Your task to perform on an android device: turn off improve location accuracy Image 0: 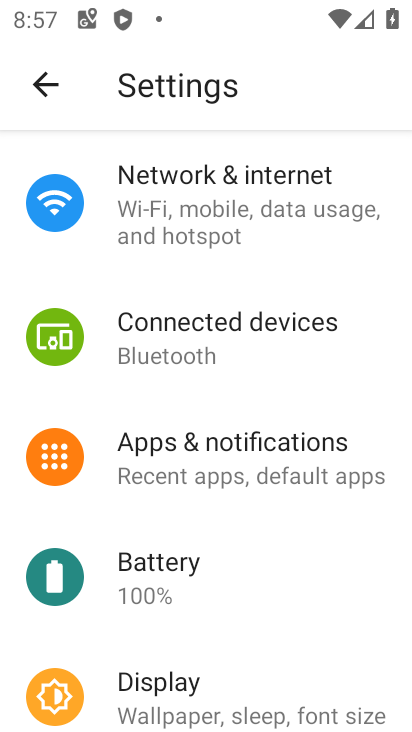
Step 0: press back button
Your task to perform on an android device: turn off improve location accuracy Image 1: 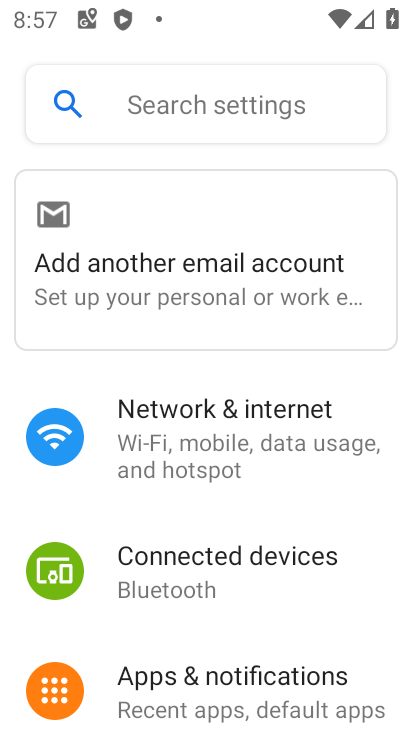
Step 1: press back button
Your task to perform on an android device: turn off improve location accuracy Image 2: 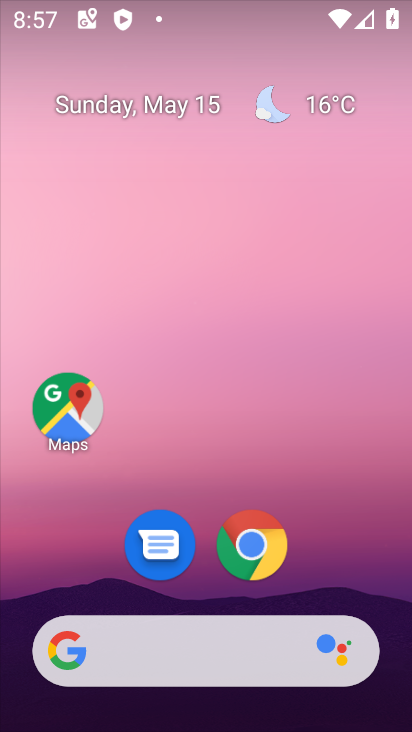
Step 2: drag from (328, 573) to (240, 239)
Your task to perform on an android device: turn off improve location accuracy Image 3: 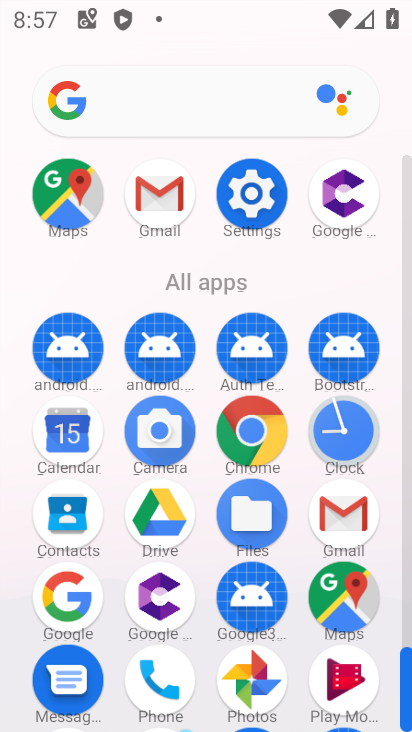
Step 3: click (252, 192)
Your task to perform on an android device: turn off improve location accuracy Image 4: 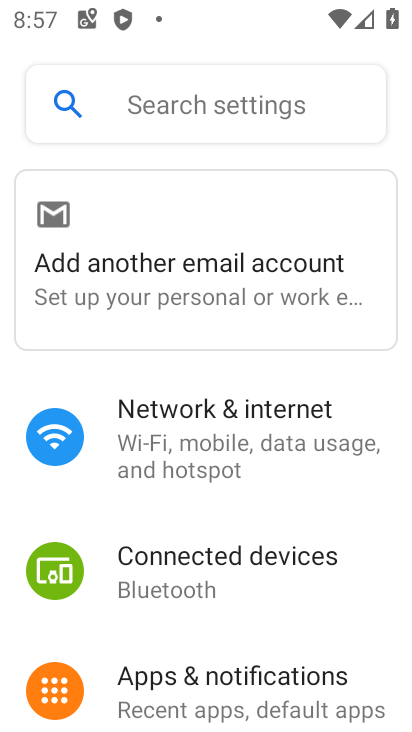
Step 4: drag from (236, 580) to (251, 492)
Your task to perform on an android device: turn off improve location accuracy Image 5: 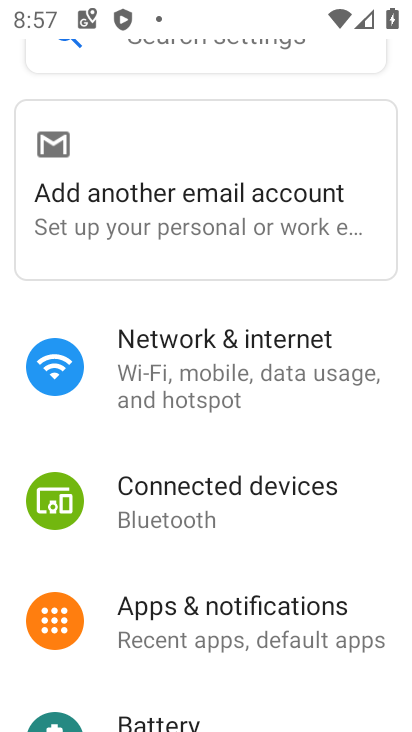
Step 5: drag from (233, 558) to (256, 456)
Your task to perform on an android device: turn off improve location accuracy Image 6: 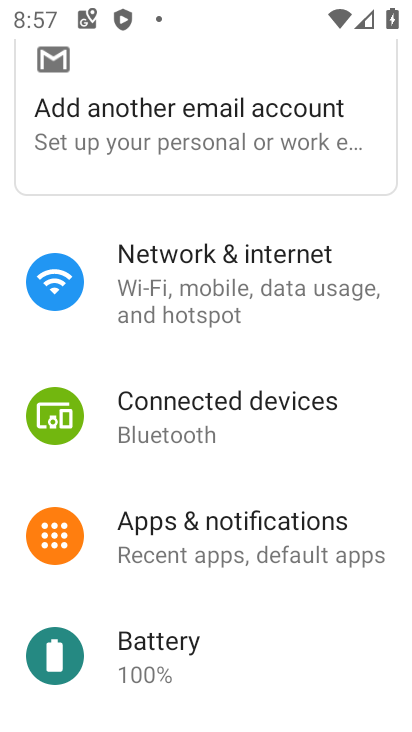
Step 6: drag from (219, 587) to (244, 489)
Your task to perform on an android device: turn off improve location accuracy Image 7: 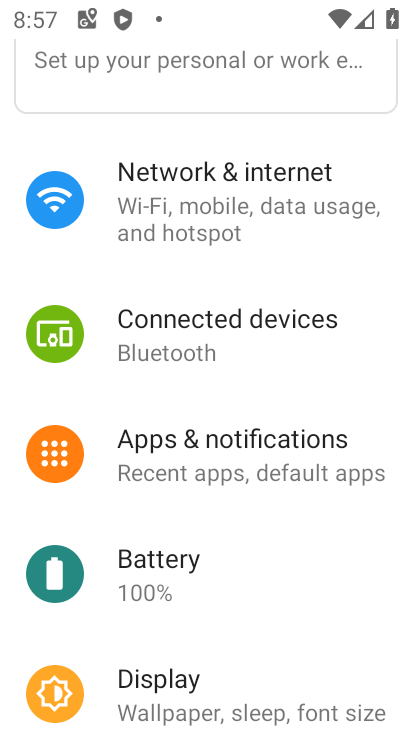
Step 7: drag from (231, 589) to (283, 490)
Your task to perform on an android device: turn off improve location accuracy Image 8: 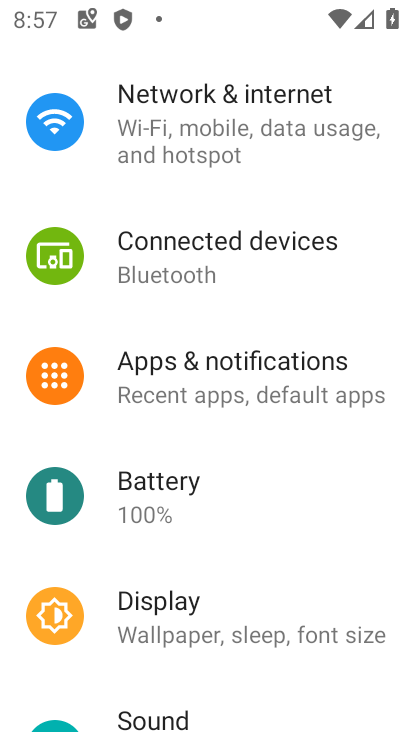
Step 8: drag from (223, 576) to (251, 480)
Your task to perform on an android device: turn off improve location accuracy Image 9: 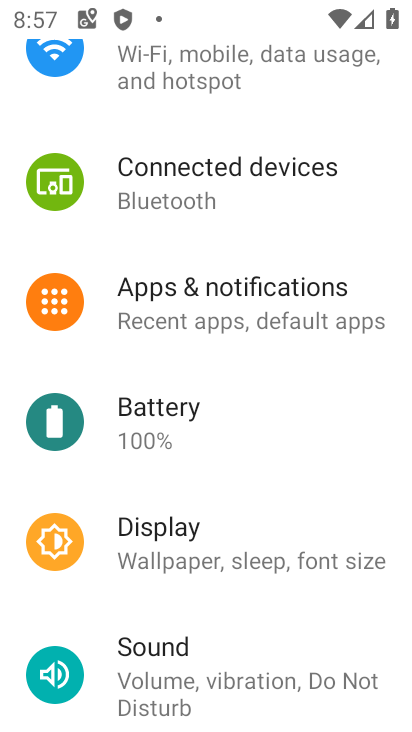
Step 9: drag from (205, 575) to (243, 495)
Your task to perform on an android device: turn off improve location accuracy Image 10: 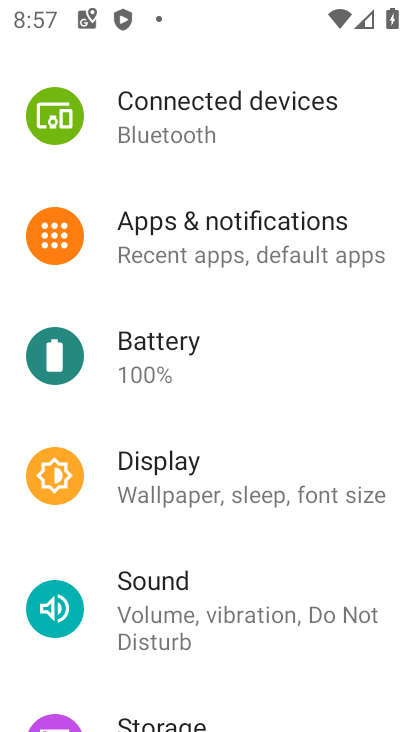
Step 10: drag from (214, 561) to (264, 462)
Your task to perform on an android device: turn off improve location accuracy Image 11: 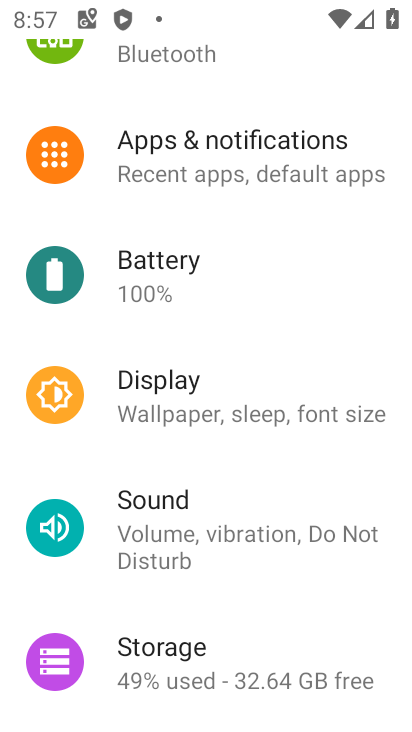
Step 11: drag from (199, 590) to (226, 497)
Your task to perform on an android device: turn off improve location accuracy Image 12: 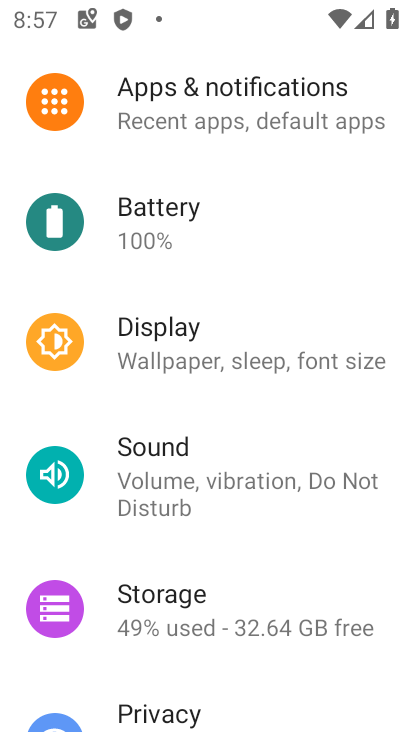
Step 12: drag from (173, 650) to (215, 553)
Your task to perform on an android device: turn off improve location accuracy Image 13: 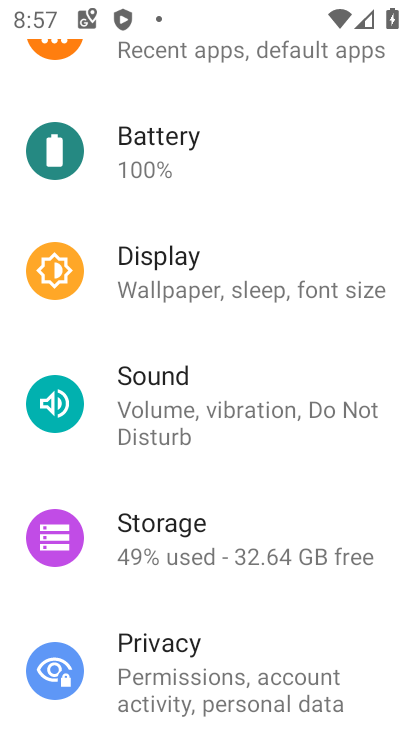
Step 13: drag from (165, 607) to (245, 474)
Your task to perform on an android device: turn off improve location accuracy Image 14: 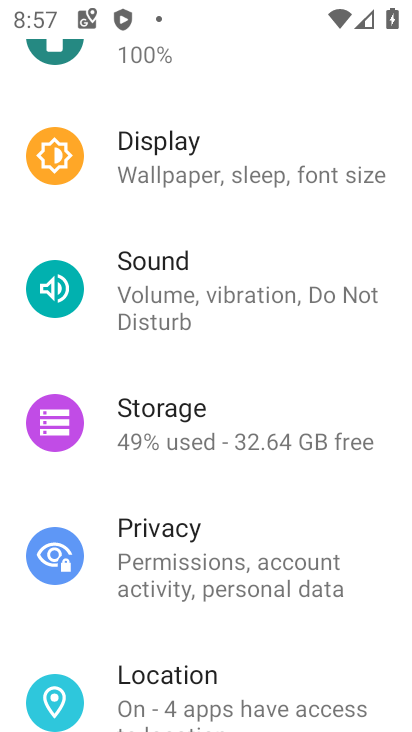
Step 14: drag from (171, 649) to (246, 534)
Your task to perform on an android device: turn off improve location accuracy Image 15: 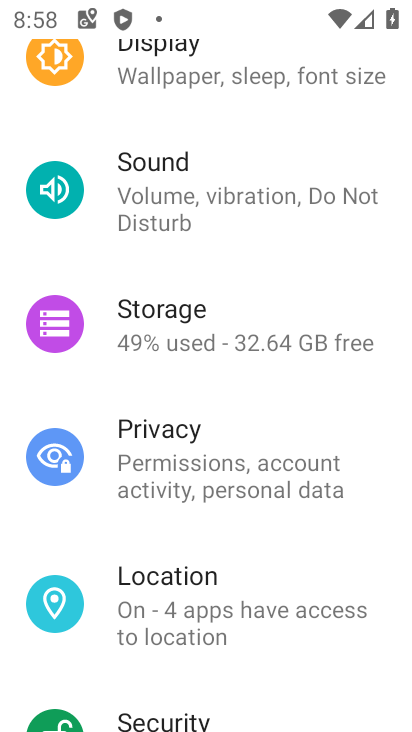
Step 15: click (181, 589)
Your task to perform on an android device: turn off improve location accuracy Image 16: 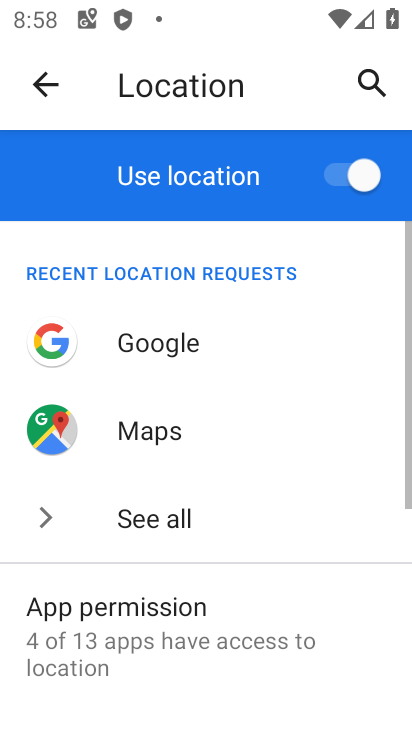
Step 16: drag from (247, 620) to (316, 458)
Your task to perform on an android device: turn off improve location accuracy Image 17: 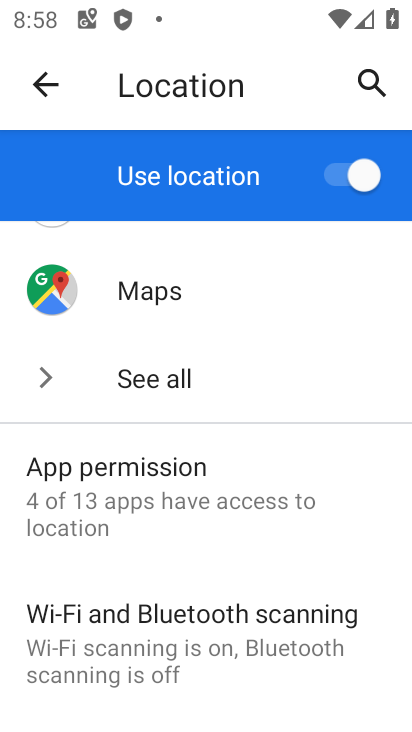
Step 17: drag from (228, 668) to (261, 545)
Your task to perform on an android device: turn off improve location accuracy Image 18: 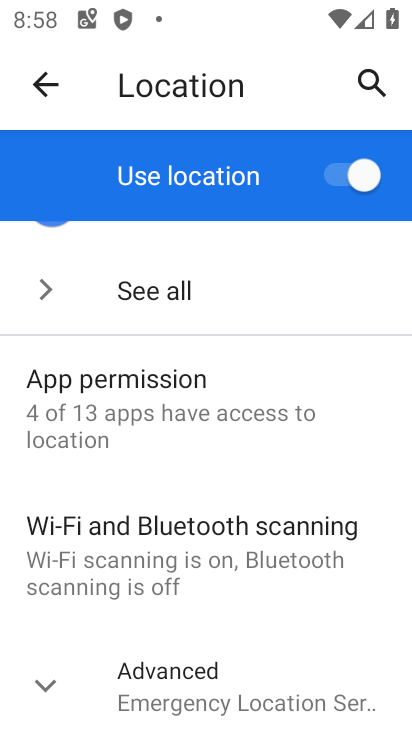
Step 18: click (191, 690)
Your task to perform on an android device: turn off improve location accuracy Image 19: 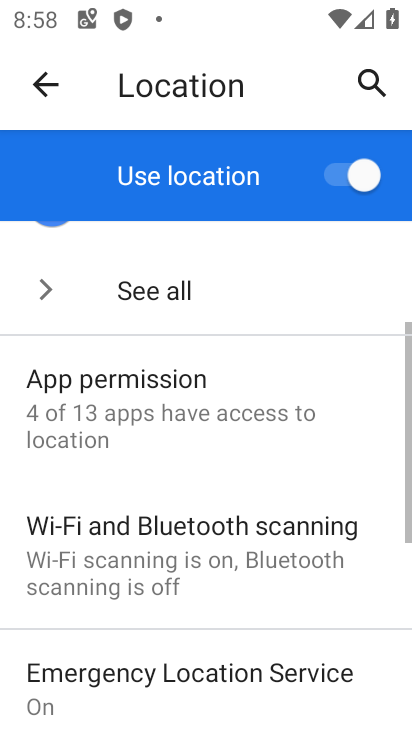
Step 19: drag from (191, 690) to (291, 509)
Your task to perform on an android device: turn off improve location accuracy Image 20: 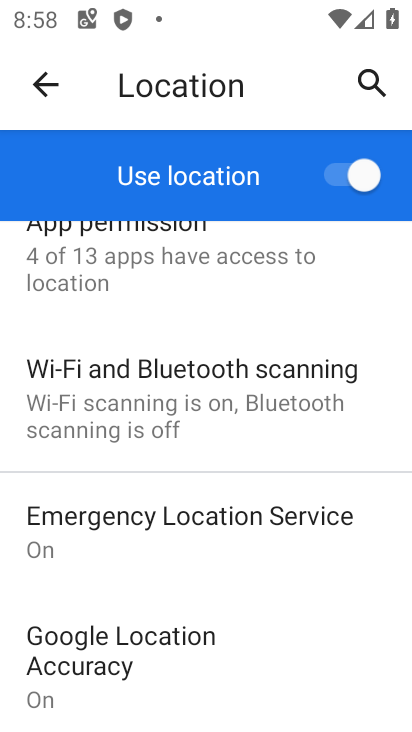
Step 20: click (170, 648)
Your task to perform on an android device: turn off improve location accuracy Image 21: 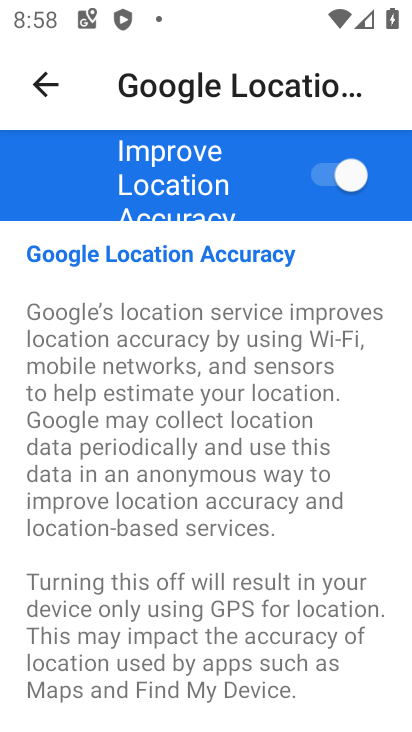
Step 21: click (349, 178)
Your task to perform on an android device: turn off improve location accuracy Image 22: 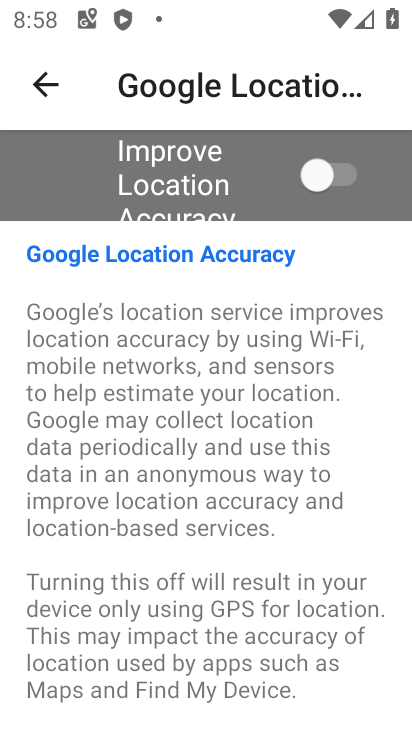
Step 22: task complete